Your task to perform on an android device: set an alarm Image 0: 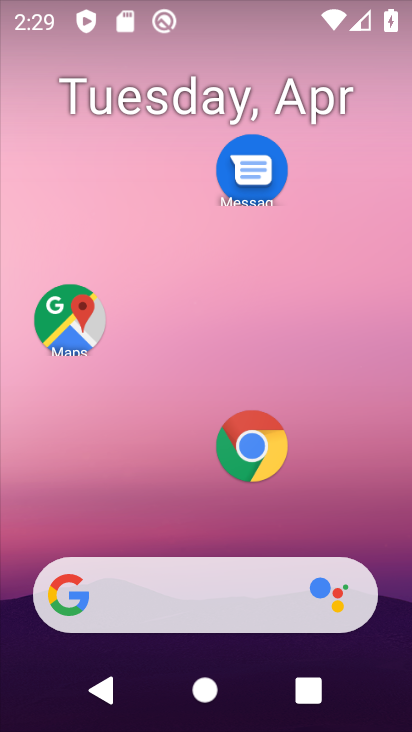
Step 0: drag from (177, 487) to (215, 45)
Your task to perform on an android device: set an alarm Image 1: 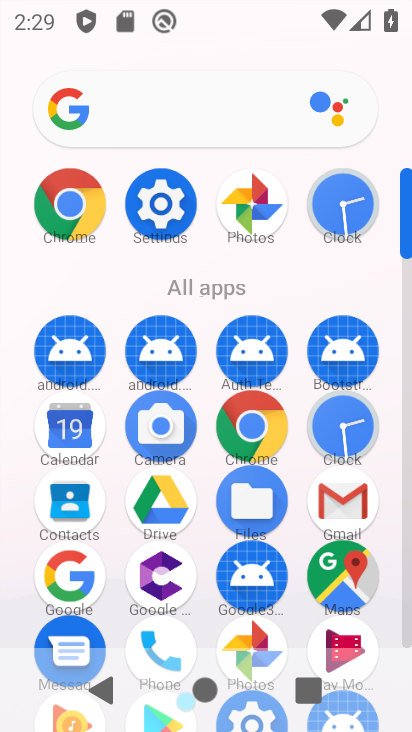
Step 1: click (336, 205)
Your task to perform on an android device: set an alarm Image 2: 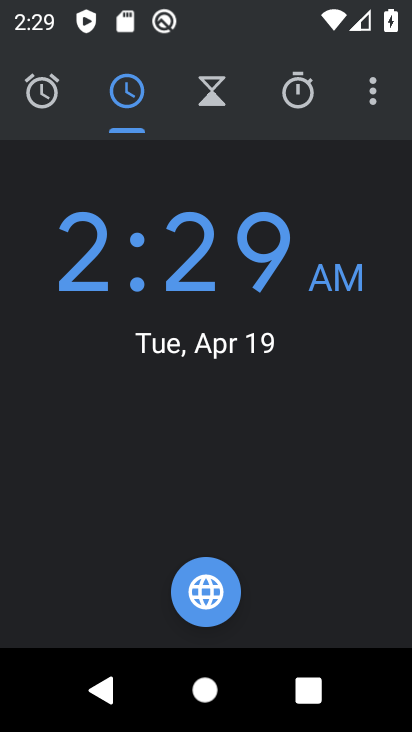
Step 2: click (36, 94)
Your task to perform on an android device: set an alarm Image 3: 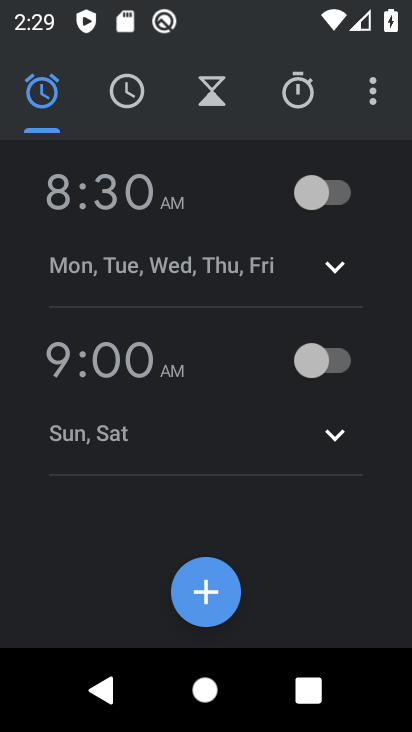
Step 3: click (206, 606)
Your task to perform on an android device: set an alarm Image 4: 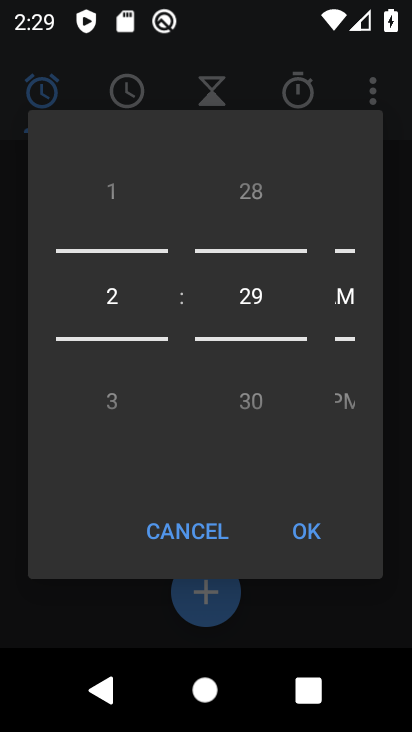
Step 4: drag from (124, 317) to (113, 439)
Your task to perform on an android device: set an alarm Image 5: 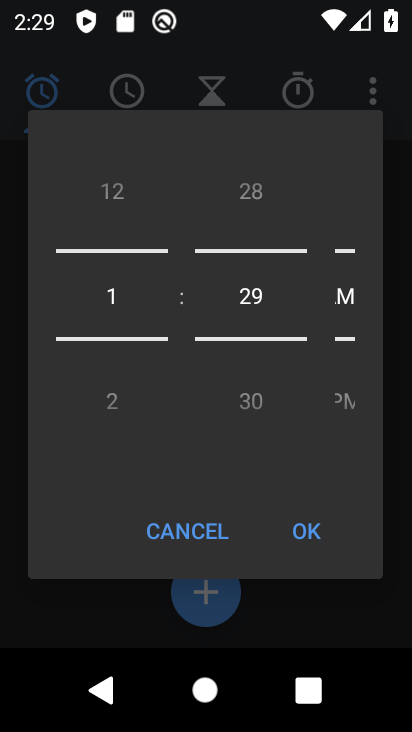
Step 5: click (295, 527)
Your task to perform on an android device: set an alarm Image 6: 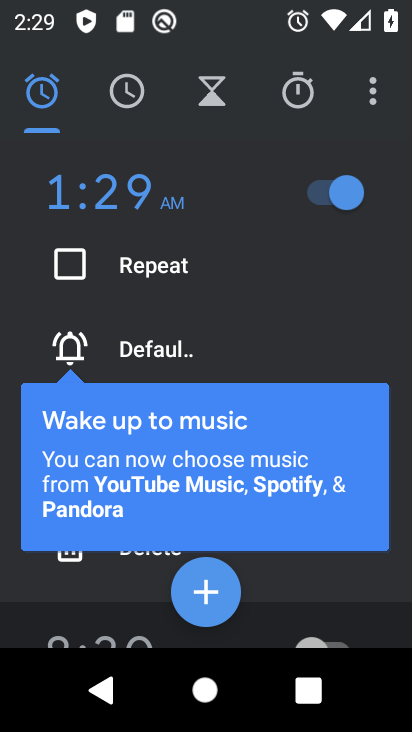
Step 6: task complete